Your task to perform on an android device: Open Google Image 0: 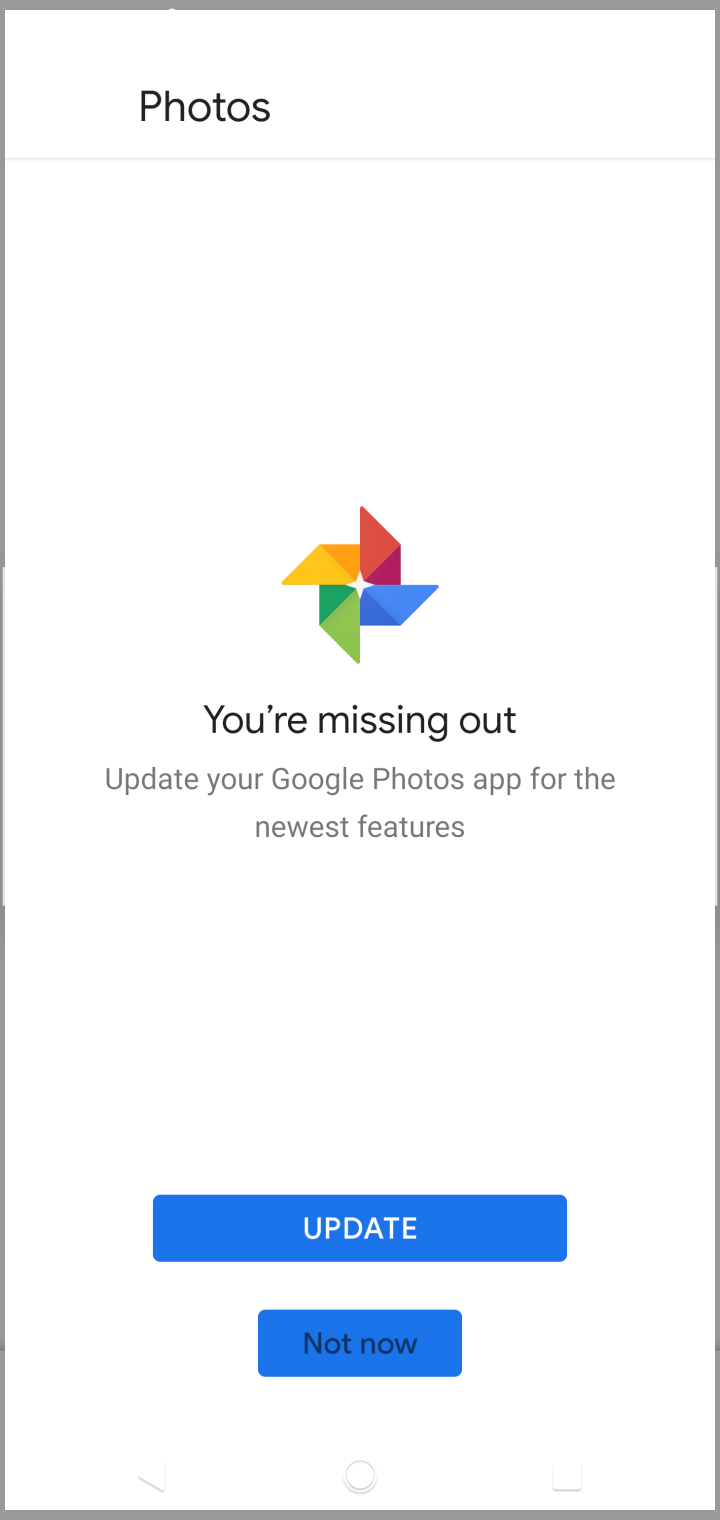
Step 0: press home button
Your task to perform on an android device: Open Google Image 1: 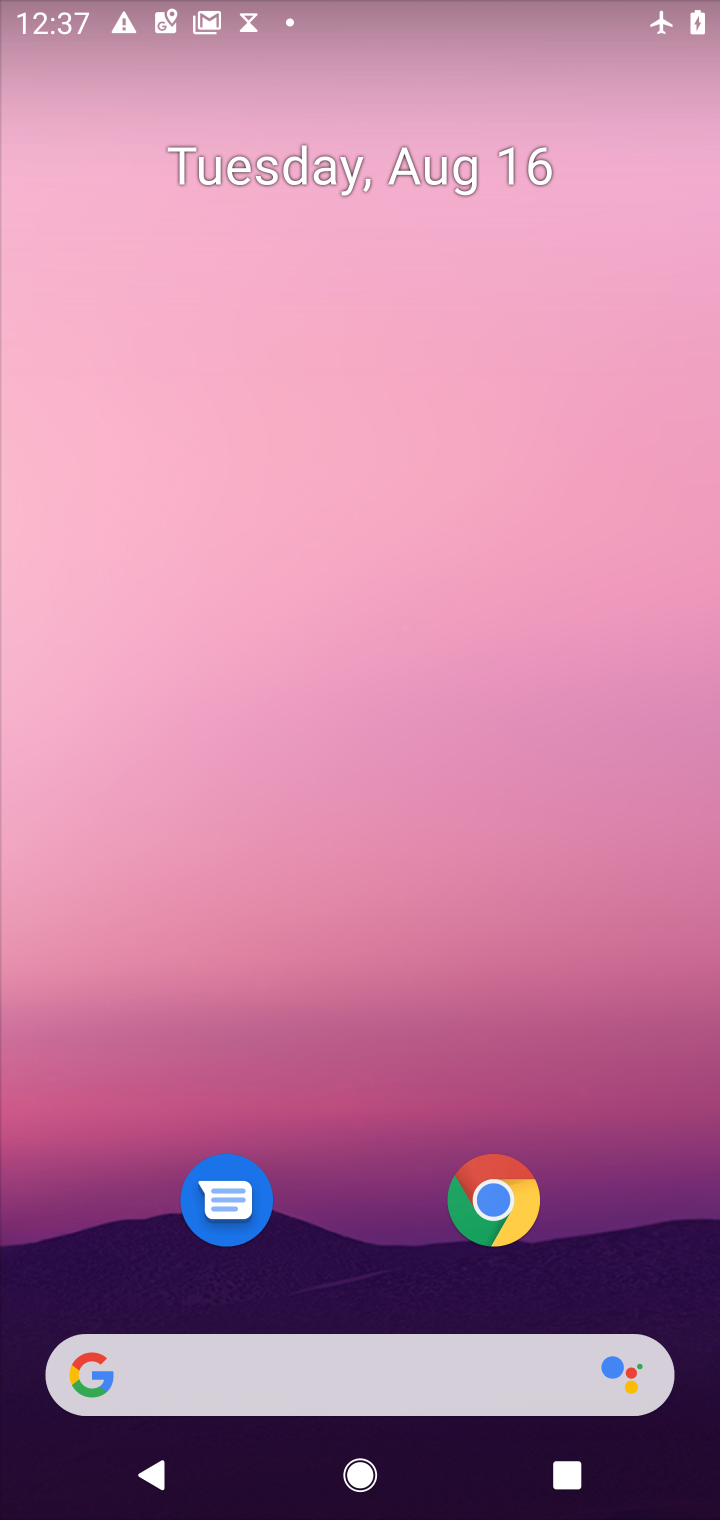
Step 1: drag from (386, 1221) to (384, 281)
Your task to perform on an android device: Open Google Image 2: 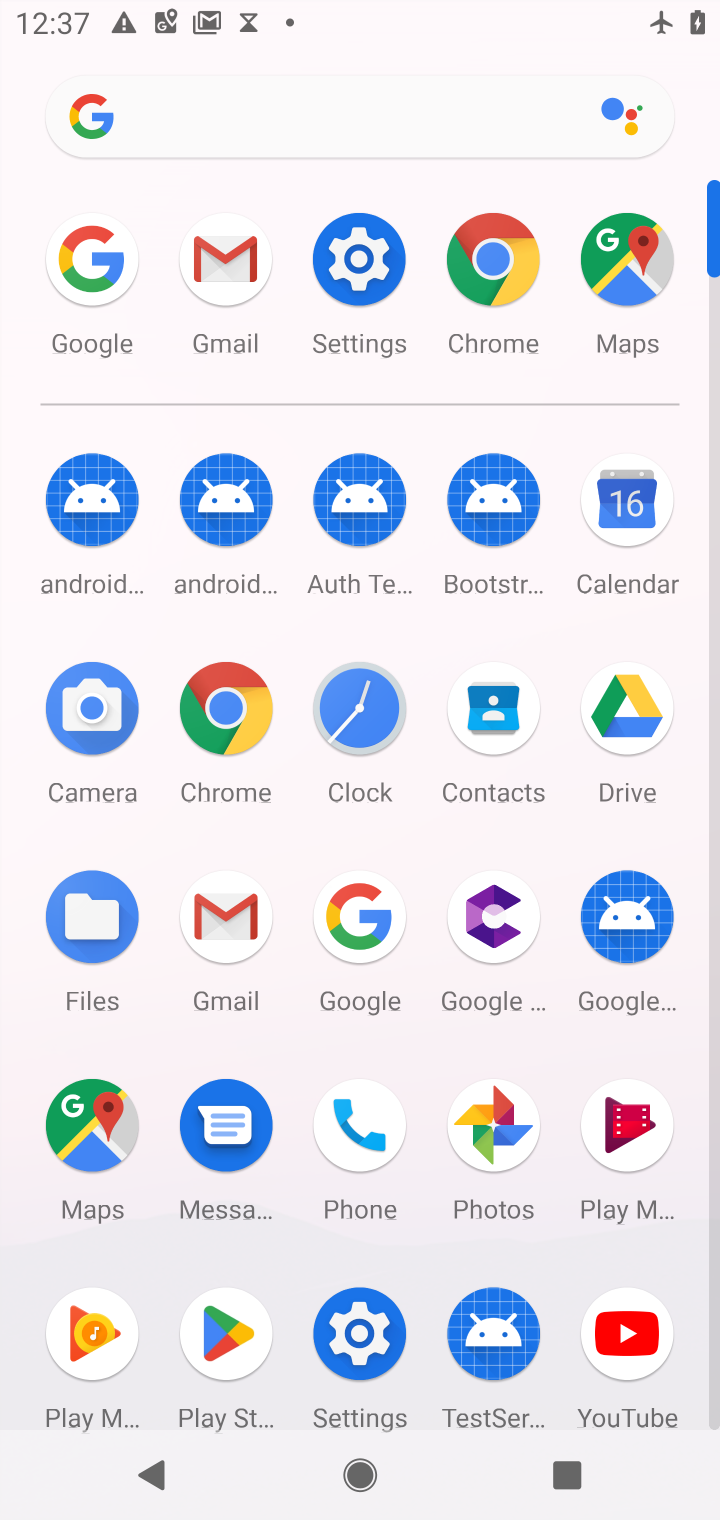
Step 2: click (107, 295)
Your task to perform on an android device: Open Google Image 3: 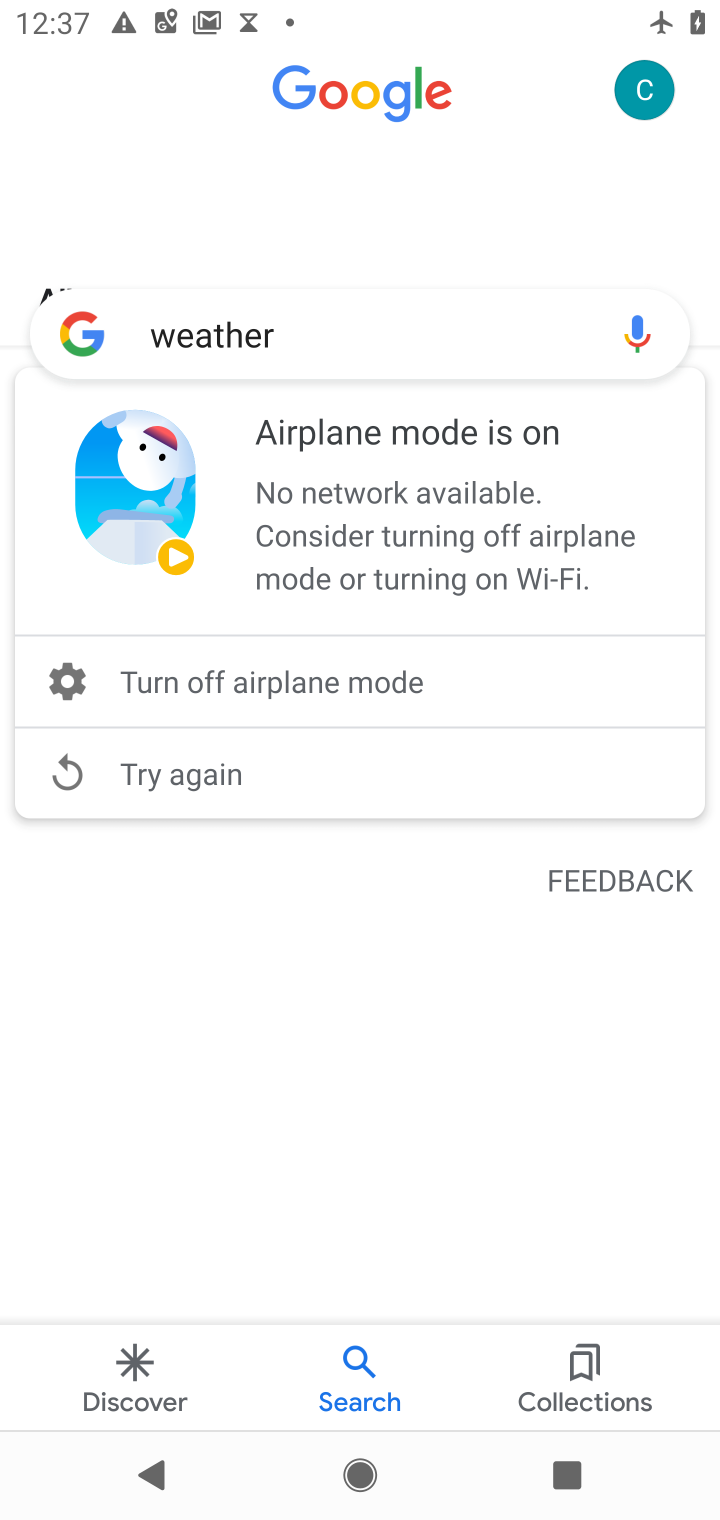
Step 3: task complete